Your task to perform on an android device: toggle wifi Image 0: 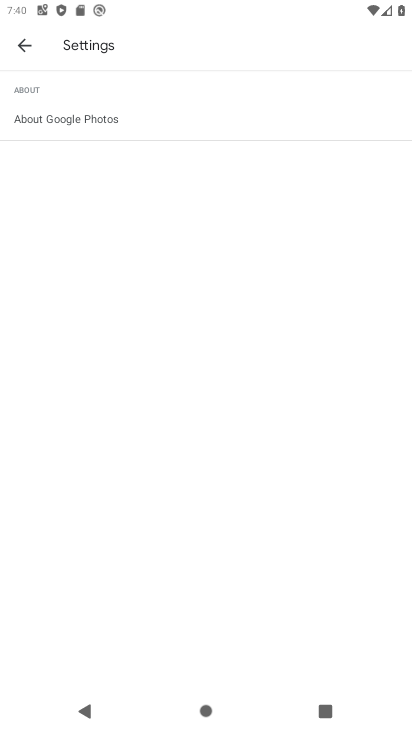
Step 0: press home button
Your task to perform on an android device: toggle wifi Image 1: 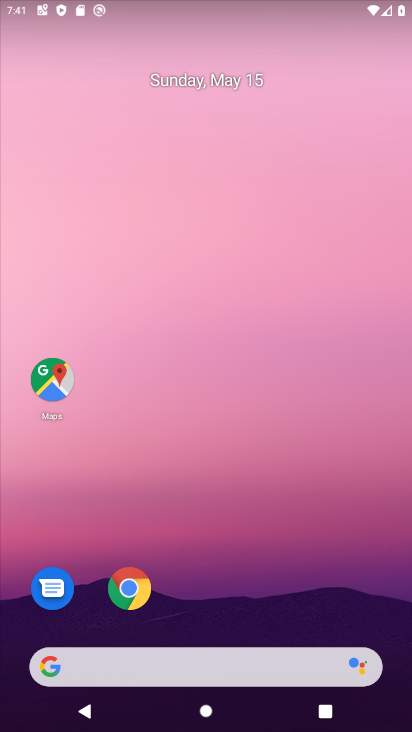
Step 1: drag from (181, 12) to (234, 439)
Your task to perform on an android device: toggle wifi Image 2: 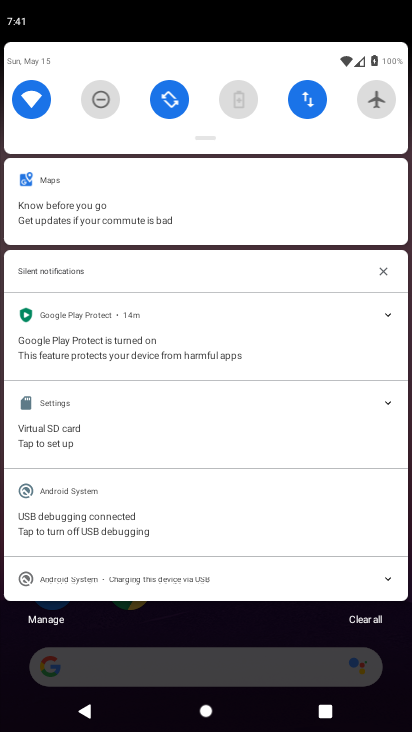
Step 2: click (17, 100)
Your task to perform on an android device: toggle wifi Image 3: 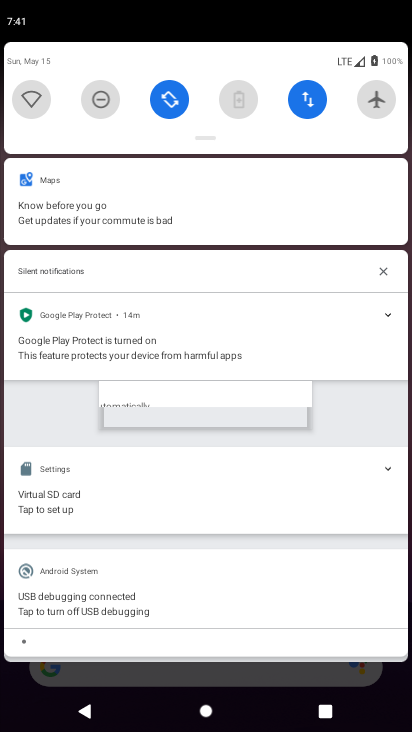
Step 3: task complete